Your task to perform on an android device: turn notification dots off Image 0: 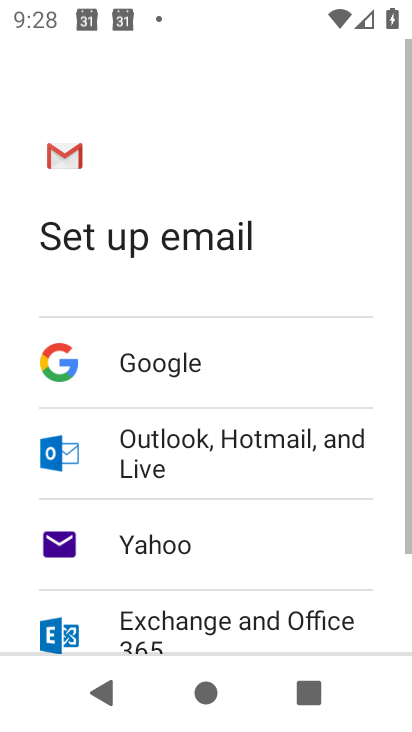
Step 0: press home button
Your task to perform on an android device: turn notification dots off Image 1: 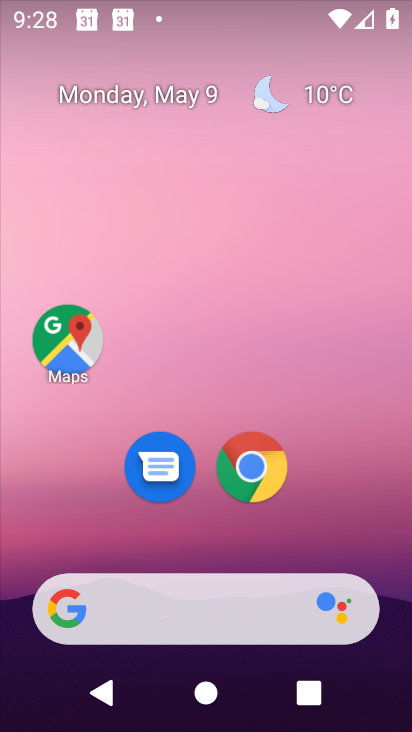
Step 1: drag from (361, 564) to (303, 19)
Your task to perform on an android device: turn notification dots off Image 2: 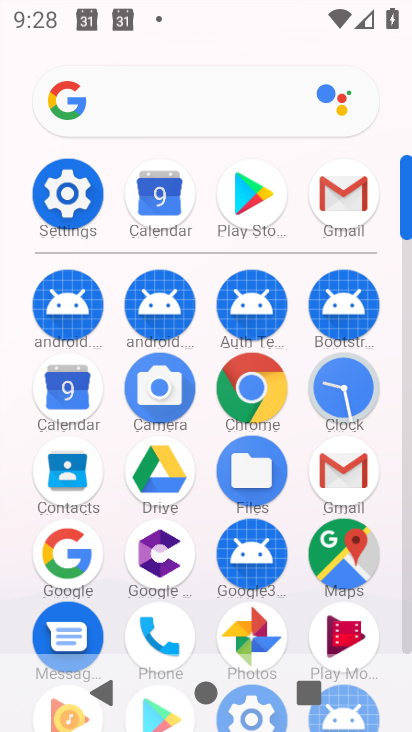
Step 2: click (58, 207)
Your task to perform on an android device: turn notification dots off Image 3: 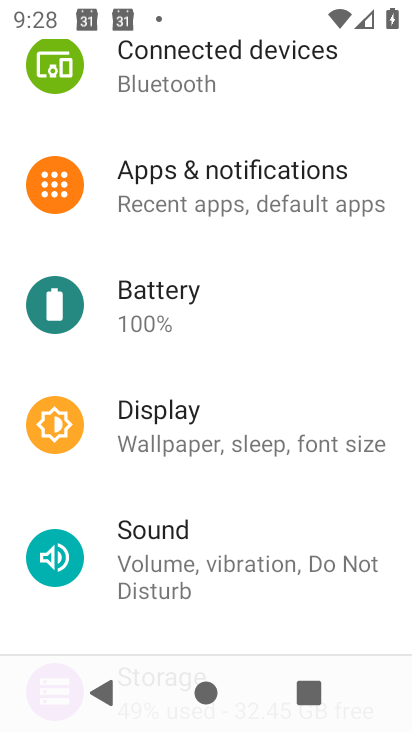
Step 3: click (230, 196)
Your task to perform on an android device: turn notification dots off Image 4: 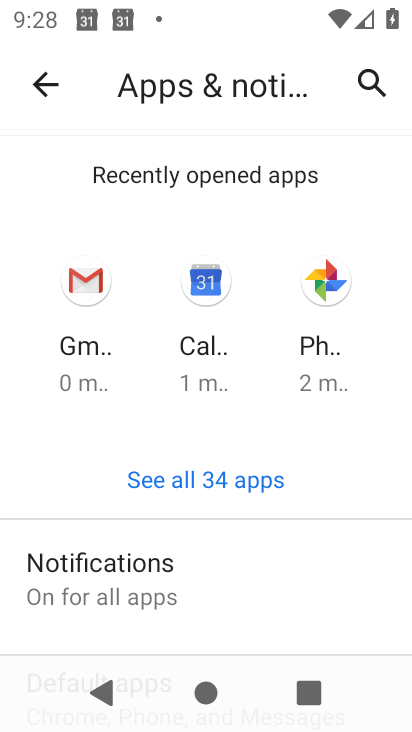
Step 4: click (93, 591)
Your task to perform on an android device: turn notification dots off Image 5: 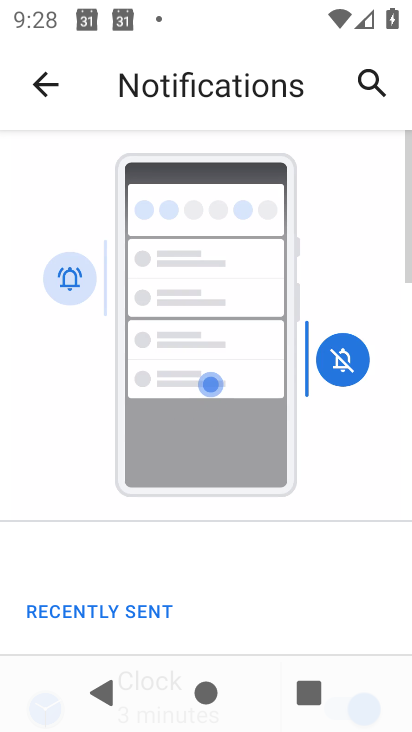
Step 5: drag from (256, 596) to (233, 5)
Your task to perform on an android device: turn notification dots off Image 6: 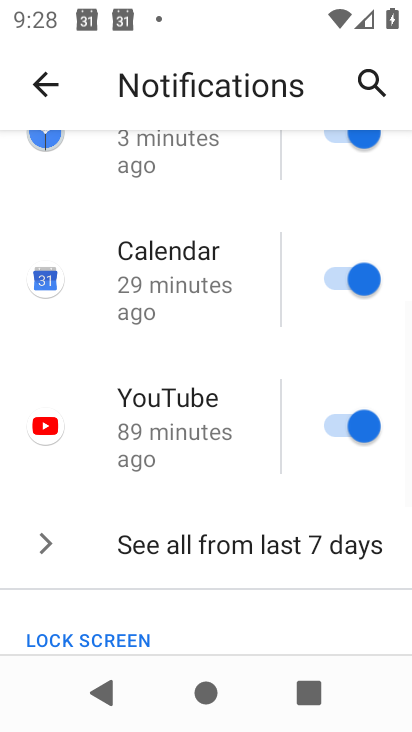
Step 6: drag from (223, 473) to (189, 75)
Your task to perform on an android device: turn notification dots off Image 7: 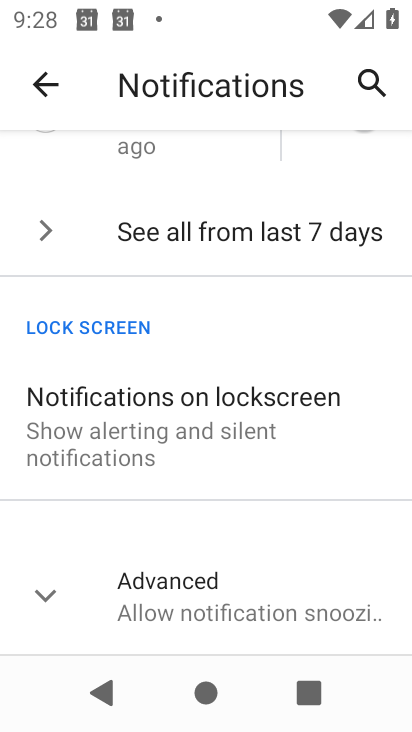
Step 7: drag from (152, 418) to (145, 123)
Your task to perform on an android device: turn notification dots off Image 8: 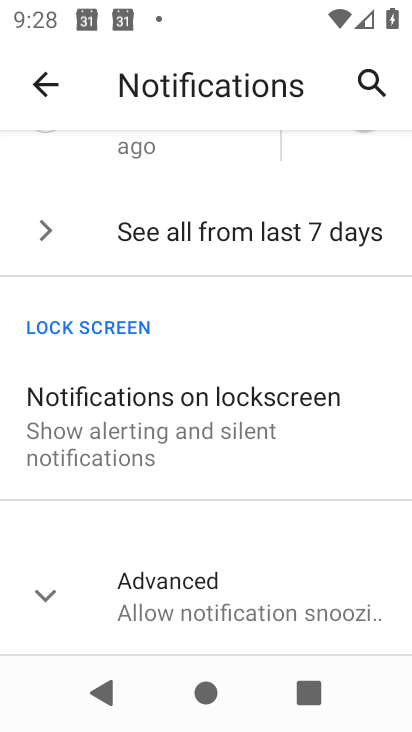
Step 8: click (48, 593)
Your task to perform on an android device: turn notification dots off Image 9: 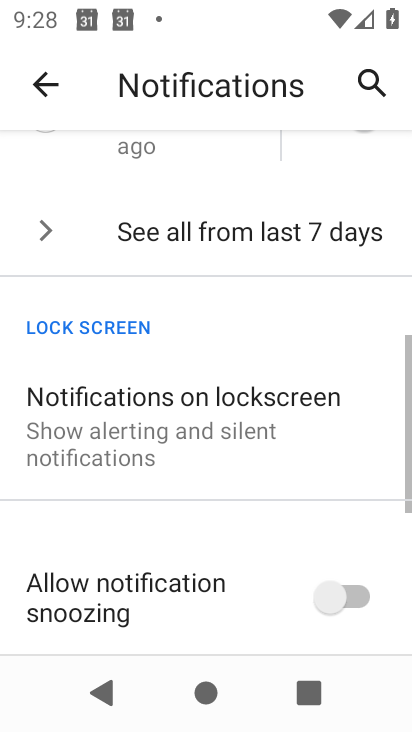
Step 9: task complete